Your task to perform on an android device: uninstall "Spotify" Image 0: 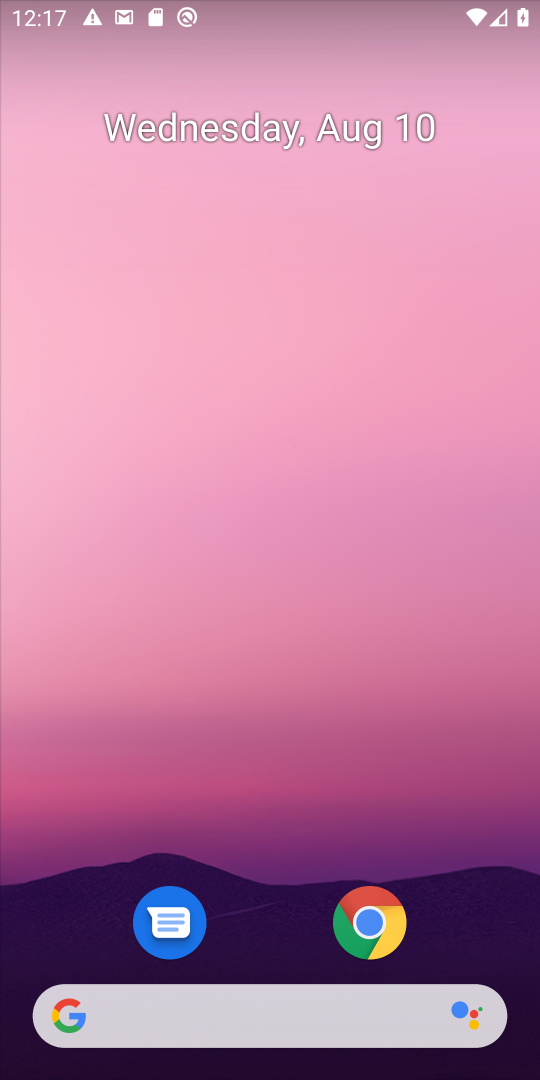
Step 0: drag from (256, 816) to (285, 7)
Your task to perform on an android device: uninstall "Spotify" Image 1: 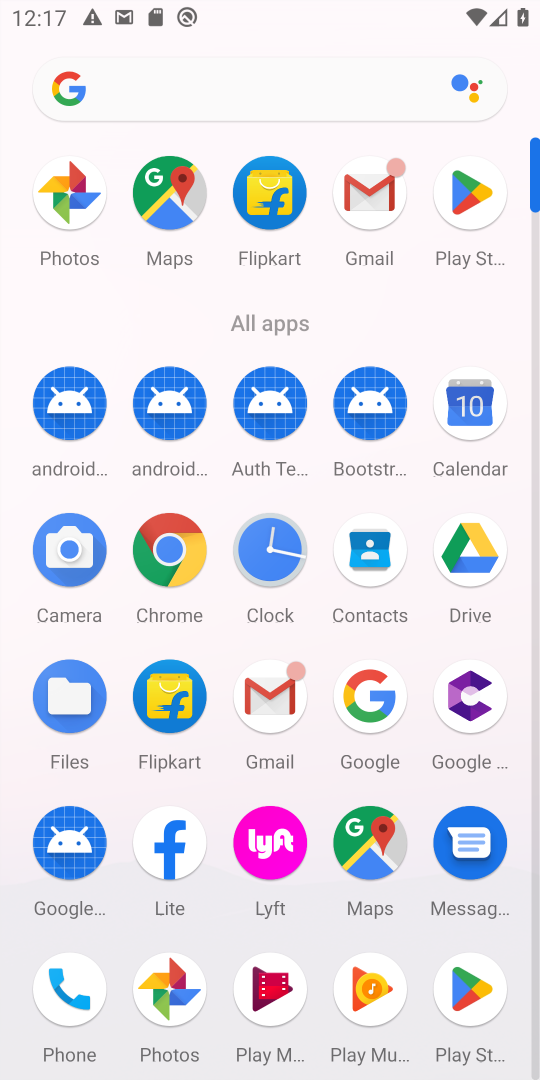
Step 1: click (478, 988)
Your task to perform on an android device: uninstall "Spotify" Image 2: 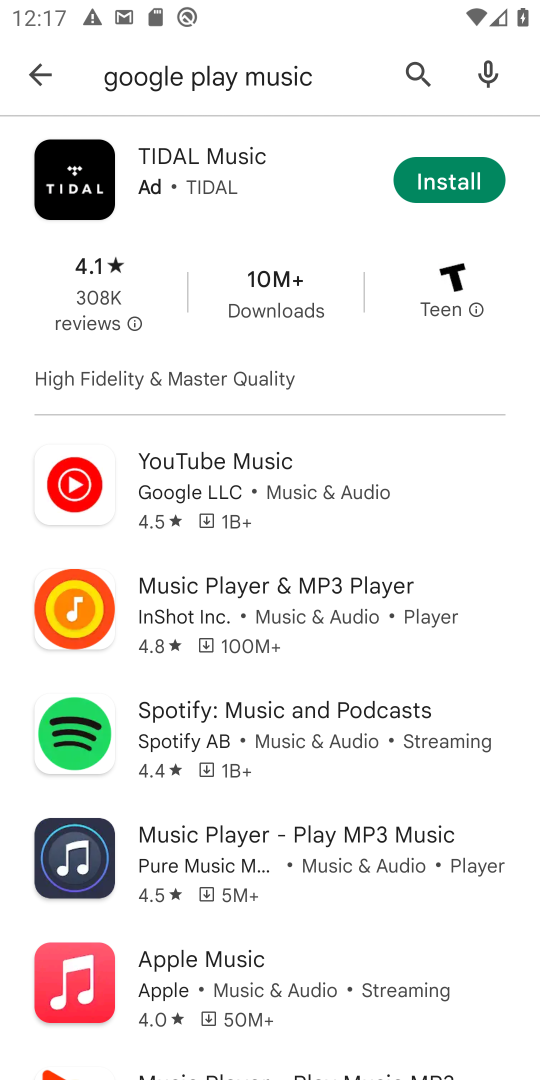
Step 2: click (24, 76)
Your task to perform on an android device: uninstall "Spotify" Image 3: 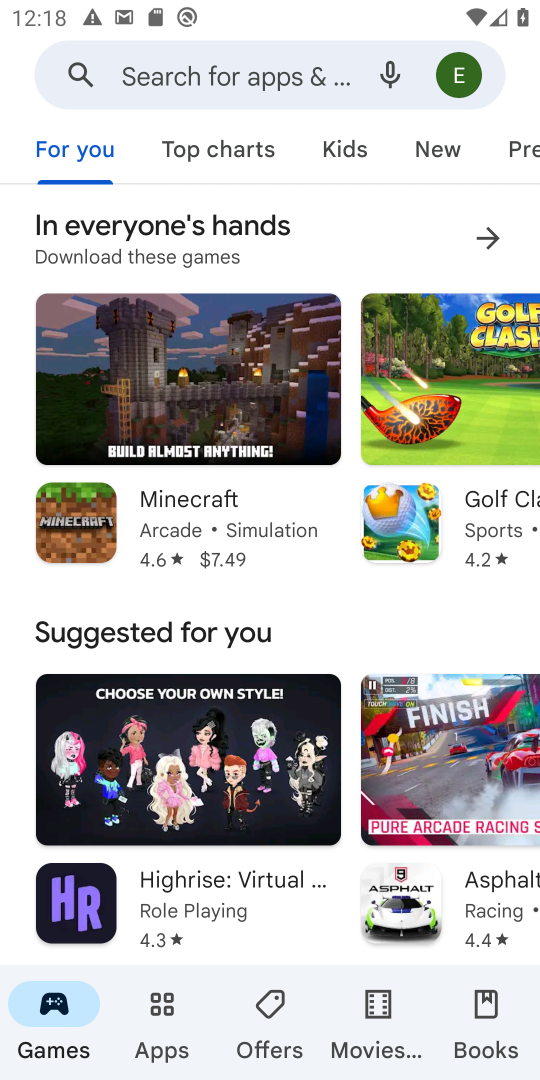
Step 3: click (199, 73)
Your task to perform on an android device: uninstall "Spotify" Image 4: 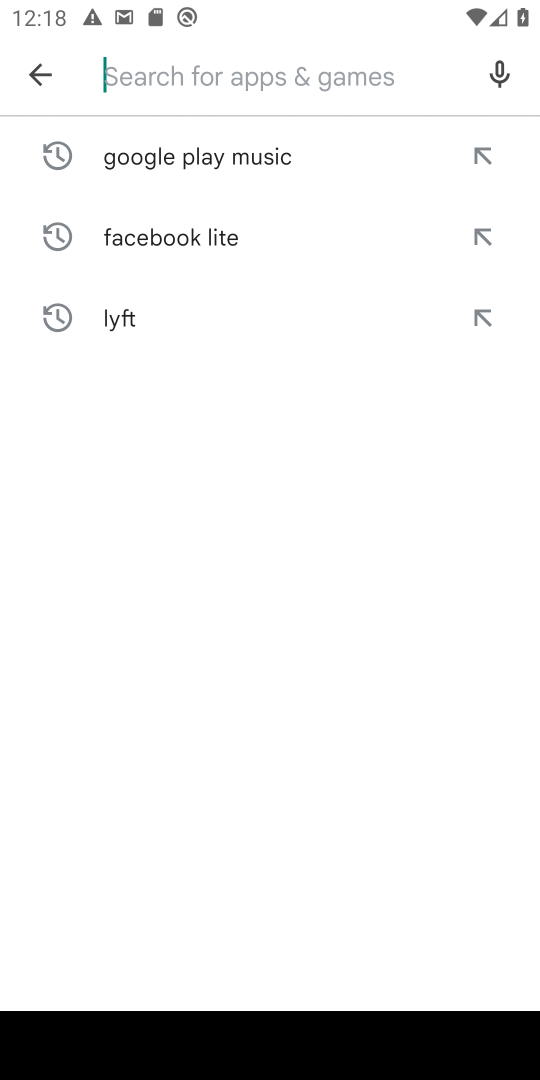
Step 4: type "Spotify"
Your task to perform on an android device: uninstall "Spotify" Image 5: 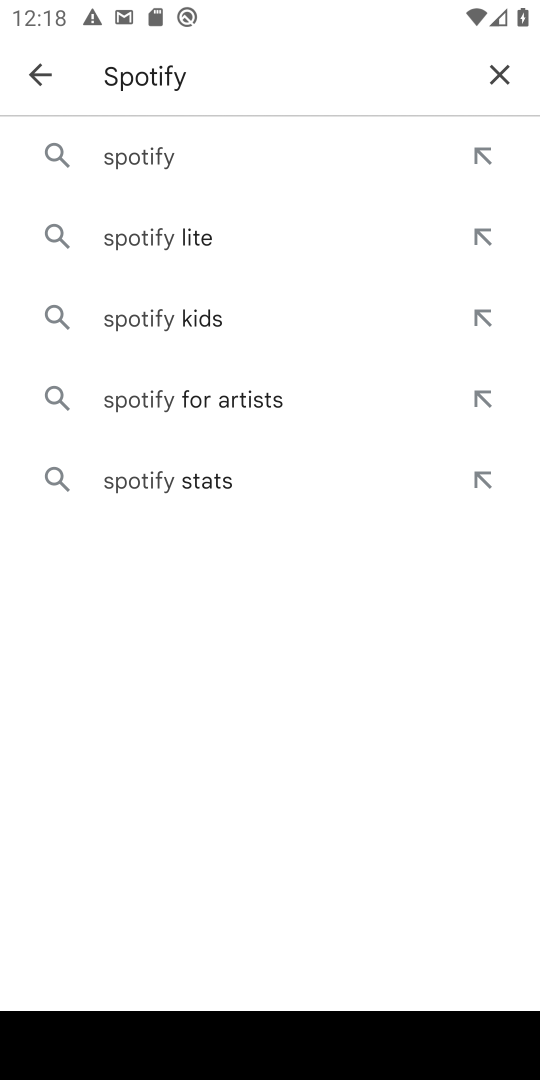
Step 5: click (138, 155)
Your task to perform on an android device: uninstall "Spotify" Image 6: 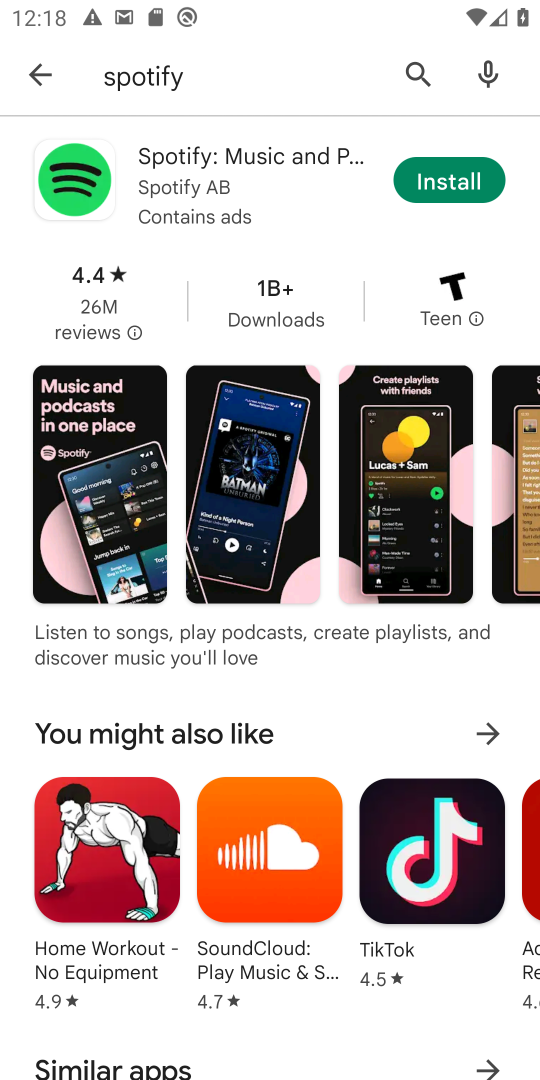
Step 6: task complete